Your task to perform on an android device: Open the map Image 0: 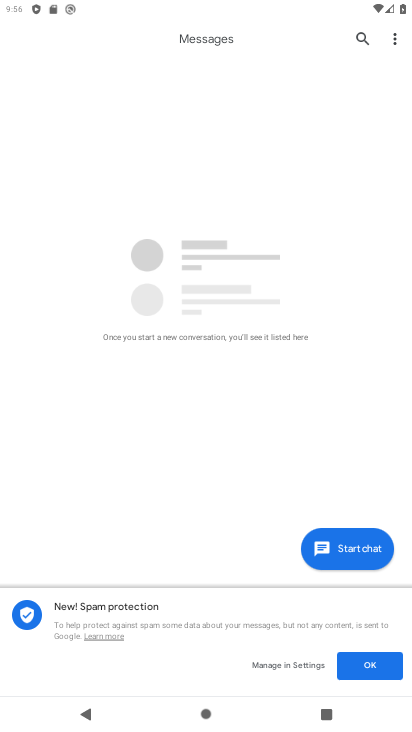
Step 0: press back button
Your task to perform on an android device: Open the map Image 1: 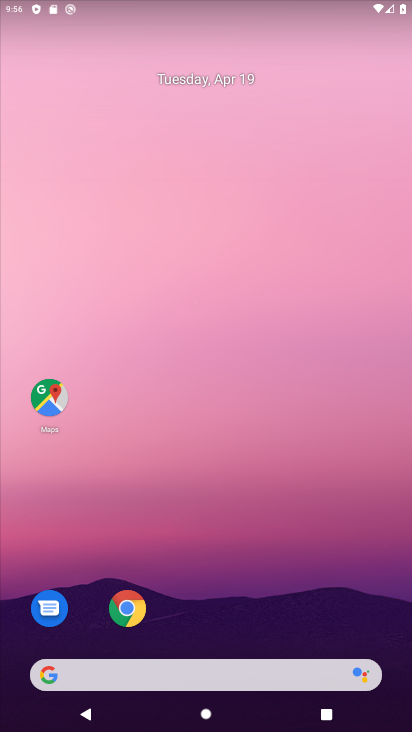
Step 1: drag from (368, 599) to (357, 168)
Your task to perform on an android device: Open the map Image 2: 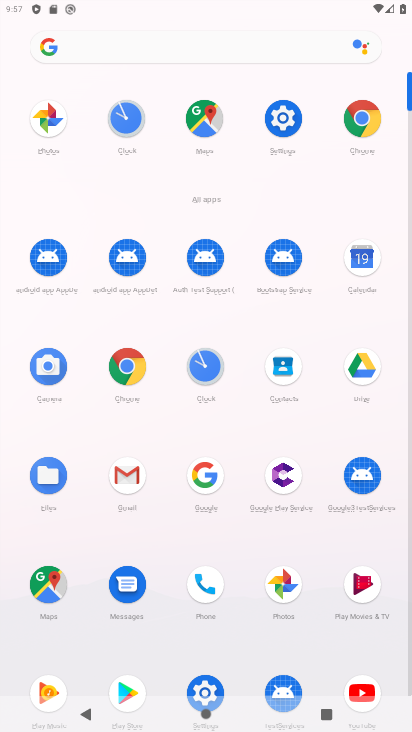
Step 2: click (33, 583)
Your task to perform on an android device: Open the map Image 3: 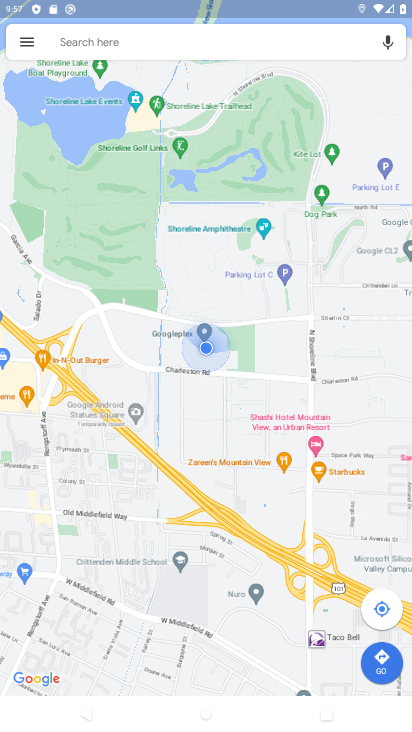
Step 3: click (86, 42)
Your task to perform on an android device: Open the map Image 4: 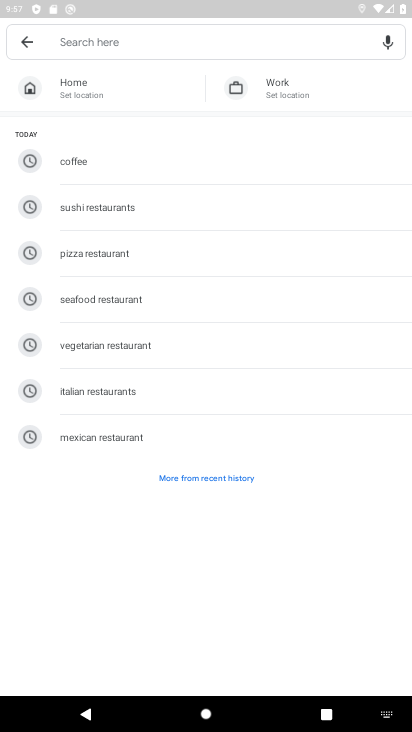
Step 4: click (107, 43)
Your task to perform on an android device: Open the map Image 5: 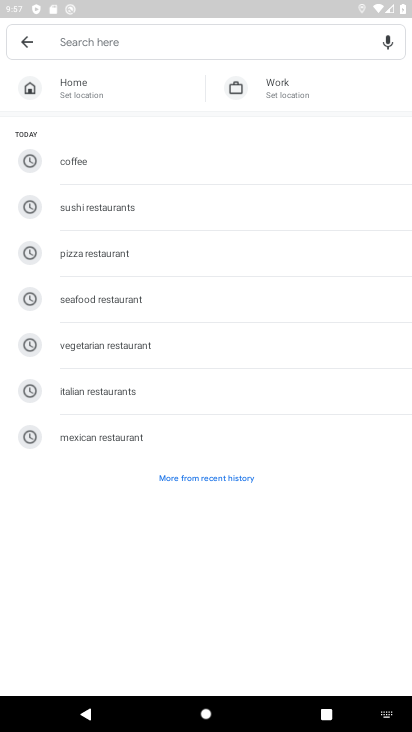
Step 5: task complete